Your task to perform on an android device: Turn on the flashlight Image 0: 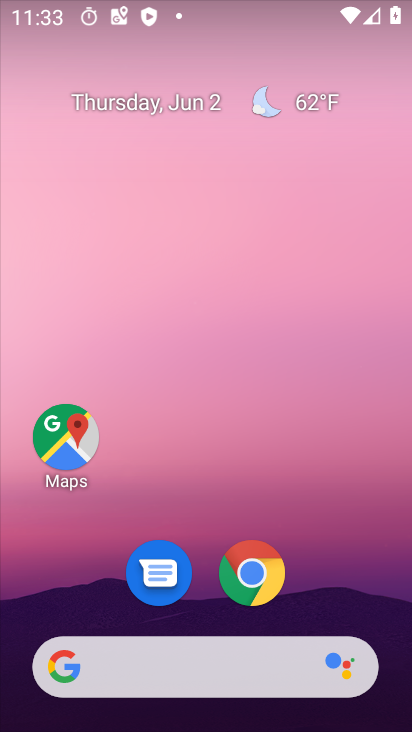
Step 0: drag from (208, 647) to (223, 39)
Your task to perform on an android device: Turn on the flashlight Image 1: 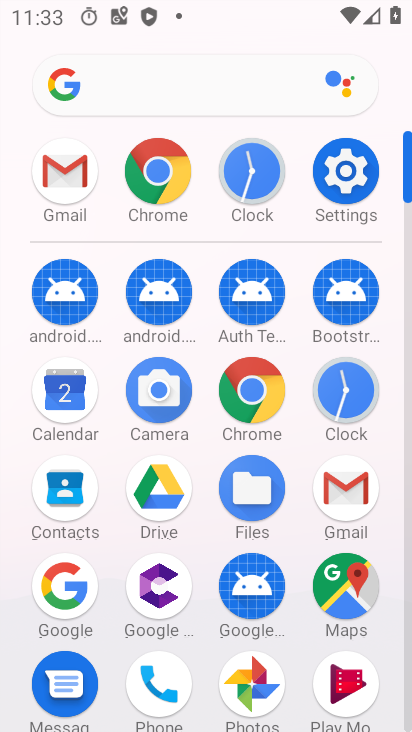
Step 1: click (370, 170)
Your task to perform on an android device: Turn on the flashlight Image 2: 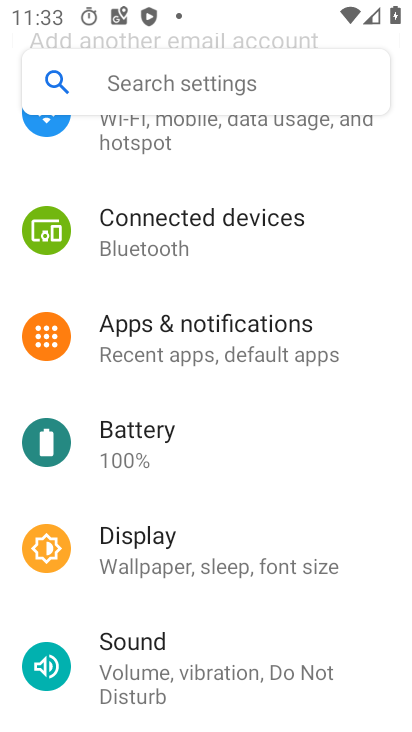
Step 2: task complete